Your task to perform on an android device: Go to Maps Image 0: 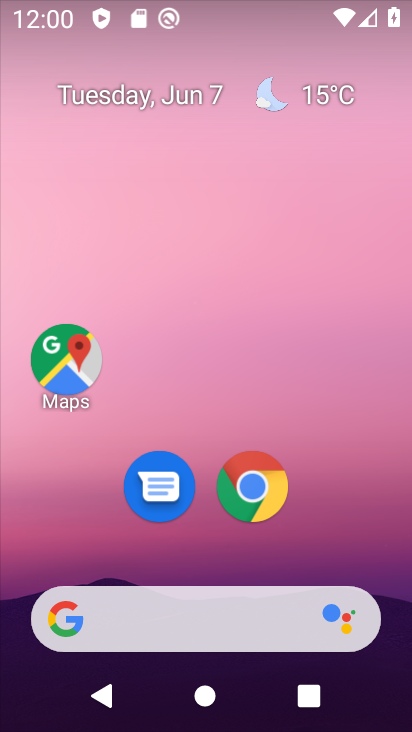
Step 0: click (88, 365)
Your task to perform on an android device: Go to Maps Image 1: 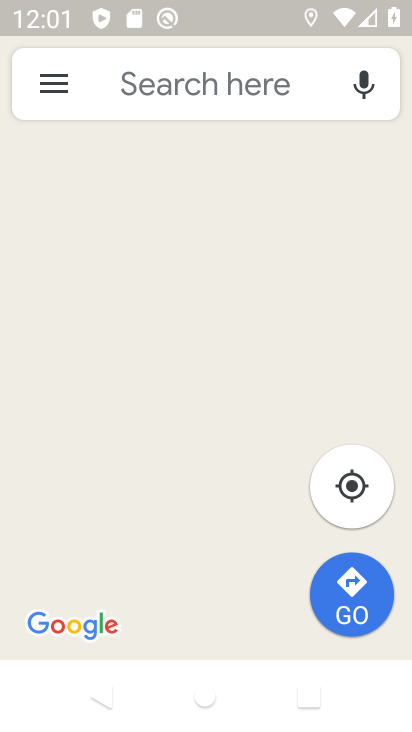
Step 1: task complete